Your task to perform on an android device: Search for seafood restaurants on Google Maps Image 0: 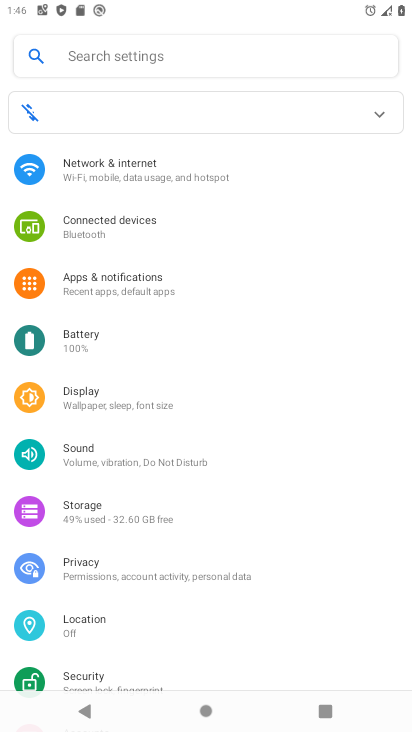
Step 0: press home button
Your task to perform on an android device: Search for seafood restaurants on Google Maps Image 1: 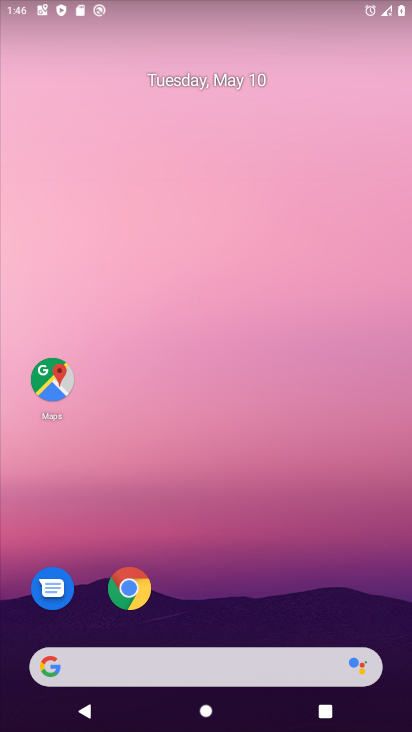
Step 1: drag from (253, 553) to (277, 290)
Your task to perform on an android device: Search for seafood restaurants on Google Maps Image 2: 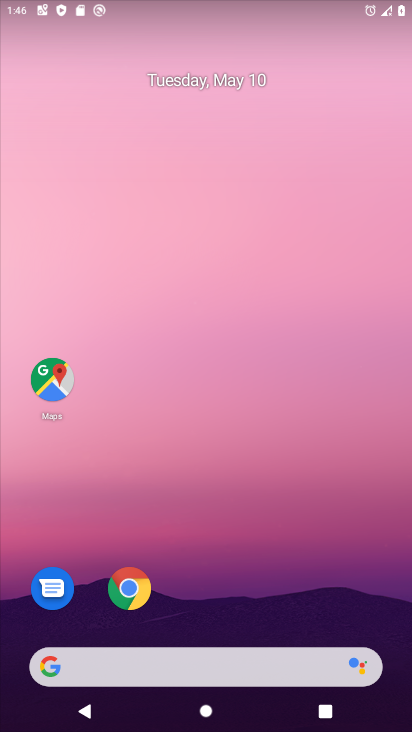
Step 2: drag from (228, 613) to (286, 202)
Your task to perform on an android device: Search for seafood restaurants on Google Maps Image 3: 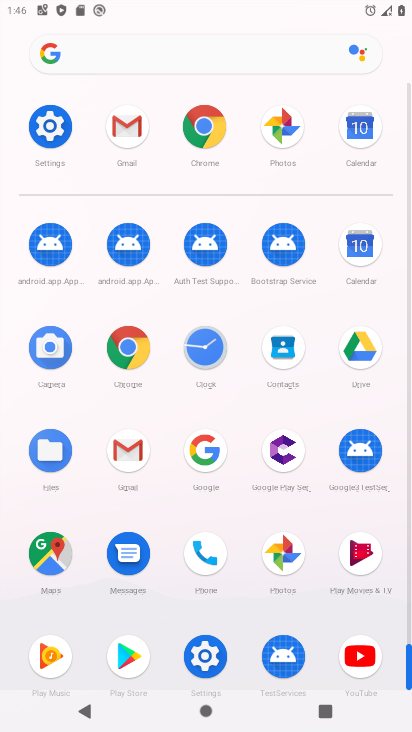
Step 3: click (49, 545)
Your task to perform on an android device: Search for seafood restaurants on Google Maps Image 4: 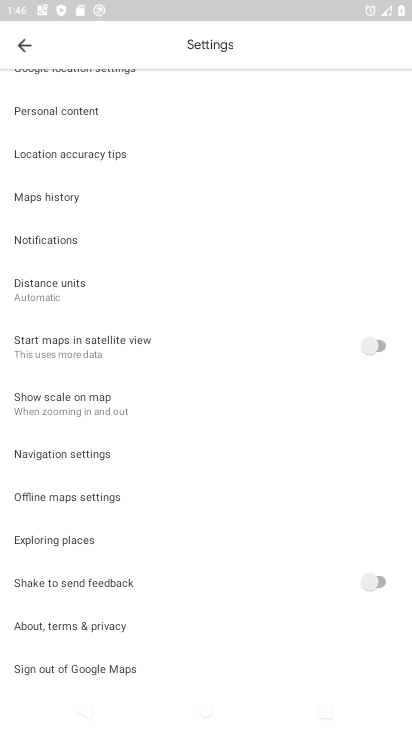
Step 4: click (32, 48)
Your task to perform on an android device: Search for seafood restaurants on Google Maps Image 5: 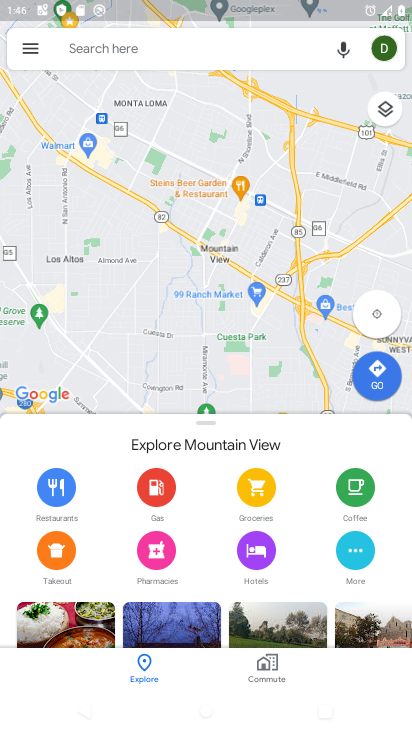
Step 5: click (234, 37)
Your task to perform on an android device: Search for seafood restaurants on Google Maps Image 6: 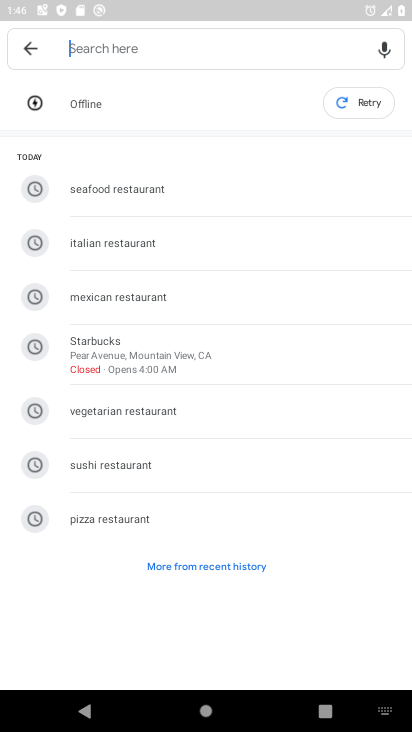
Step 6: click (147, 186)
Your task to perform on an android device: Search for seafood restaurants on Google Maps Image 7: 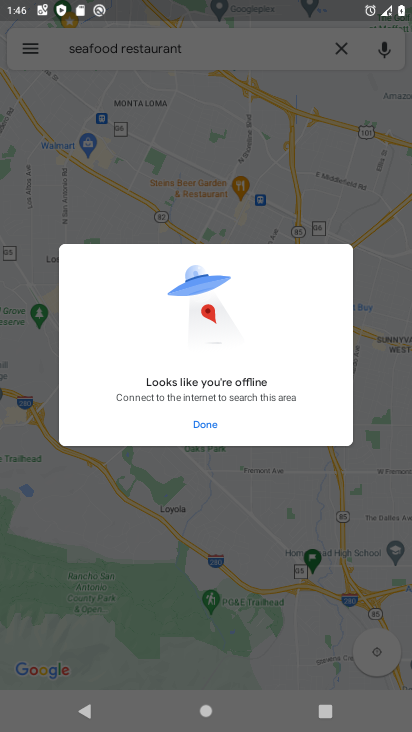
Step 7: click (206, 417)
Your task to perform on an android device: Search for seafood restaurants on Google Maps Image 8: 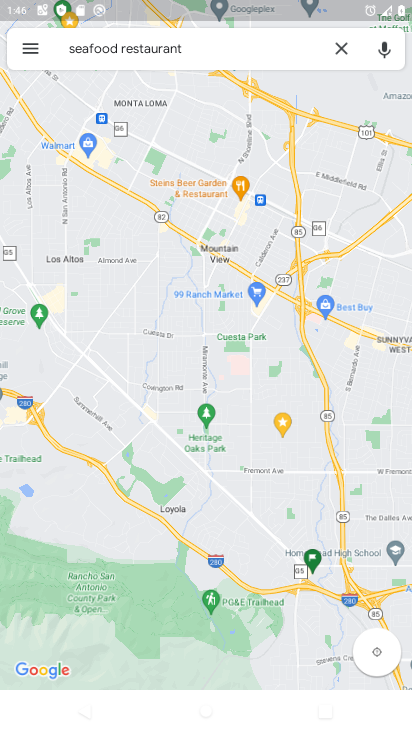
Step 8: task complete